Your task to perform on an android device: choose inbox layout in the gmail app Image 0: 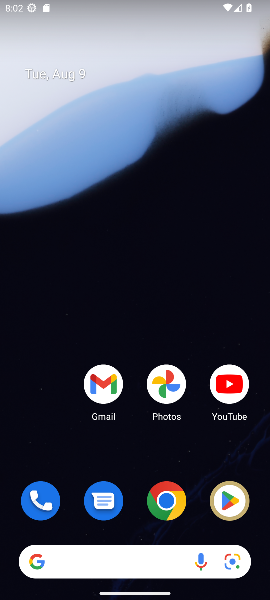
Step 0: click (111, 389)
Your task to perform on an android device: choose inbox layout in the gmail app Image 1: 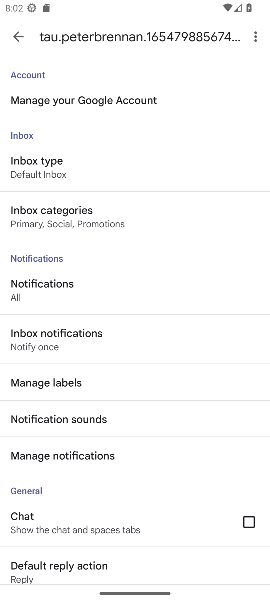
Step 1: click (66, 165)
Your task to perform on an android device: choose inbox layout in the gmail app Image 2: 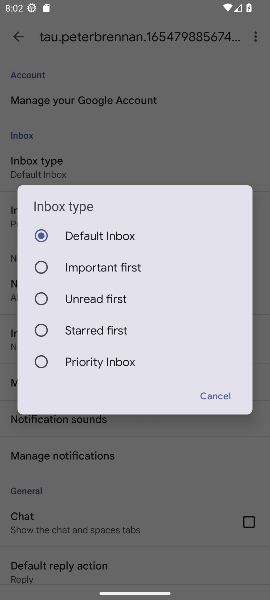
Step 2: click (64, 266)
Your task to perform on an android device: choose inbox layout in the gmail app Image 3: 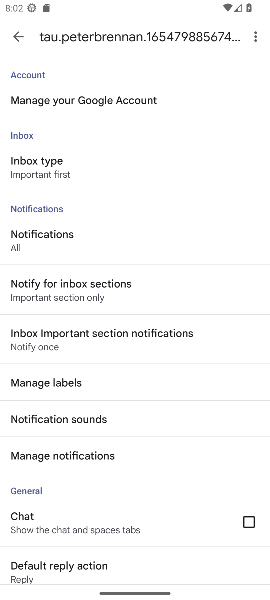
Step 3: task complete